Your task to perform on an android device: snooze an email in the gmail app Image 0: 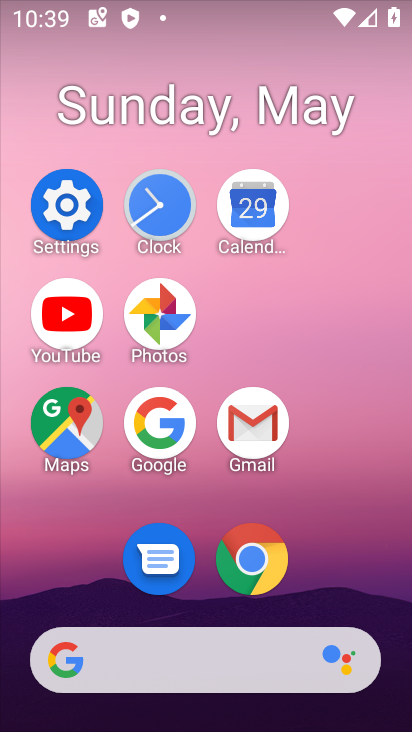
Step 0: click (269, 434)
Your task to perform on an android device: snooze an email in the gmail app Image 1: 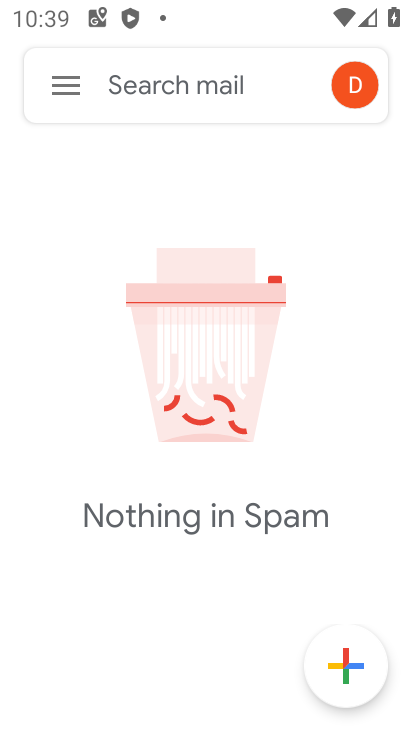
Step 1: click (56, 79)
Your task to perform on an android device: snooze an email in the gmail app Image 2: 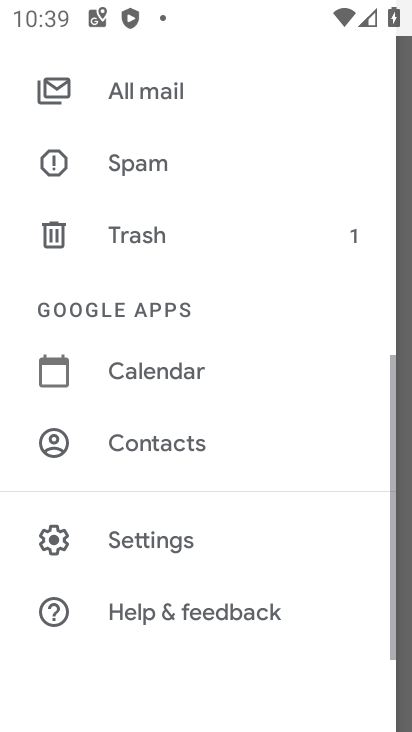
Step 2: click (201, 97)
Your task to perform on an android device: snooze an email in the gmail app Image 3: 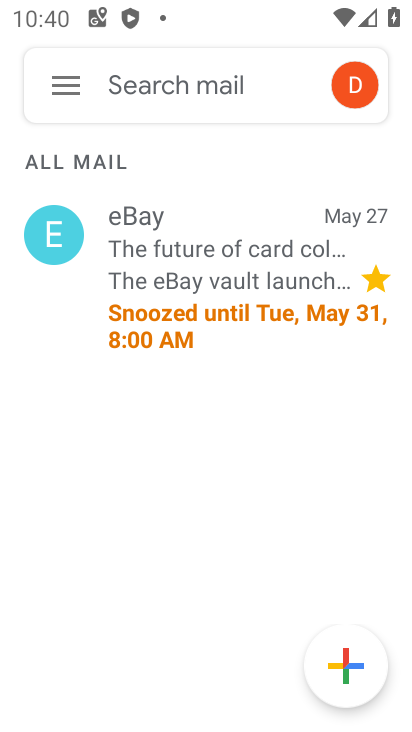
Step 3: task complete